Your task to perform on an android device: Search for "razer naga" on bestbuy, select the first entry, and add it to the cart. Image 0: 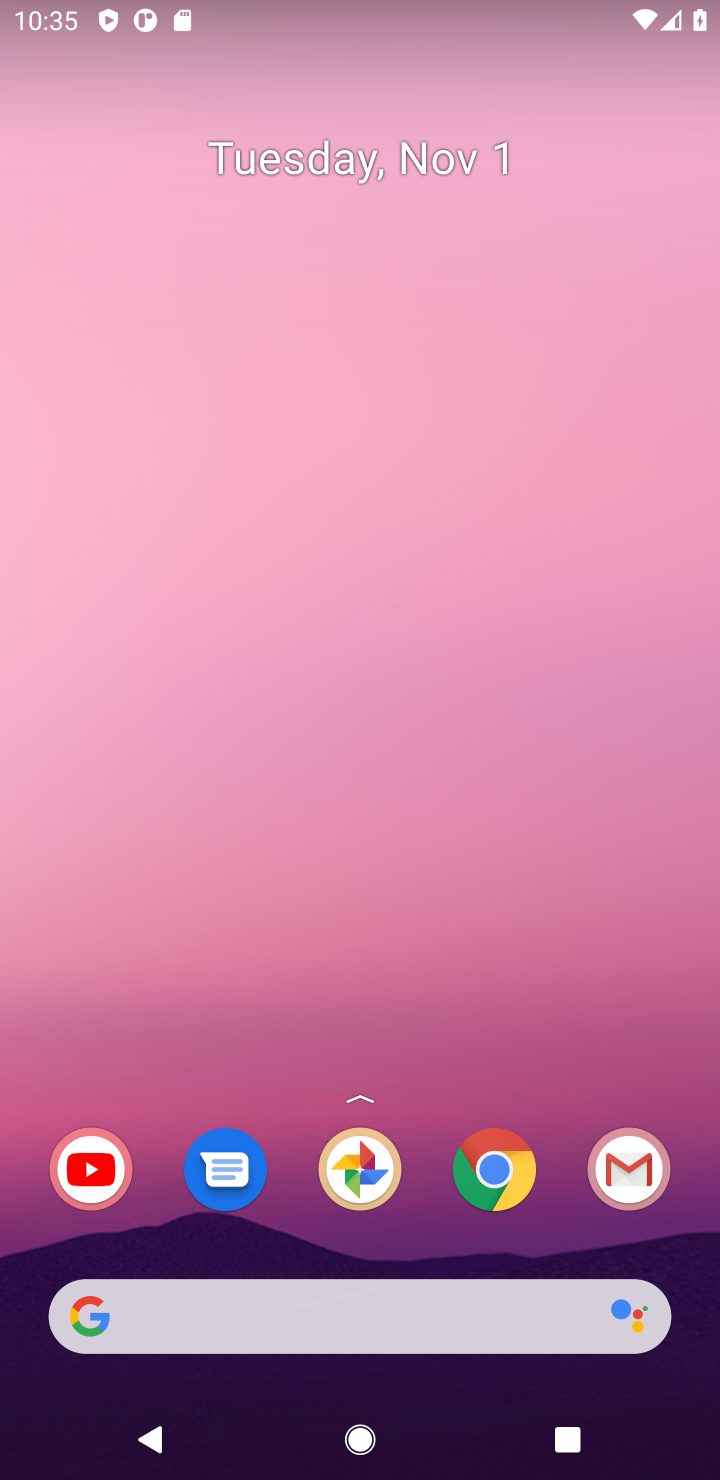
Step 0: click (486, 1168)
Your task to perform on an android device: Search for "razer naga" on bestbuy, select the first entry, and add it to the cart. Image 1: 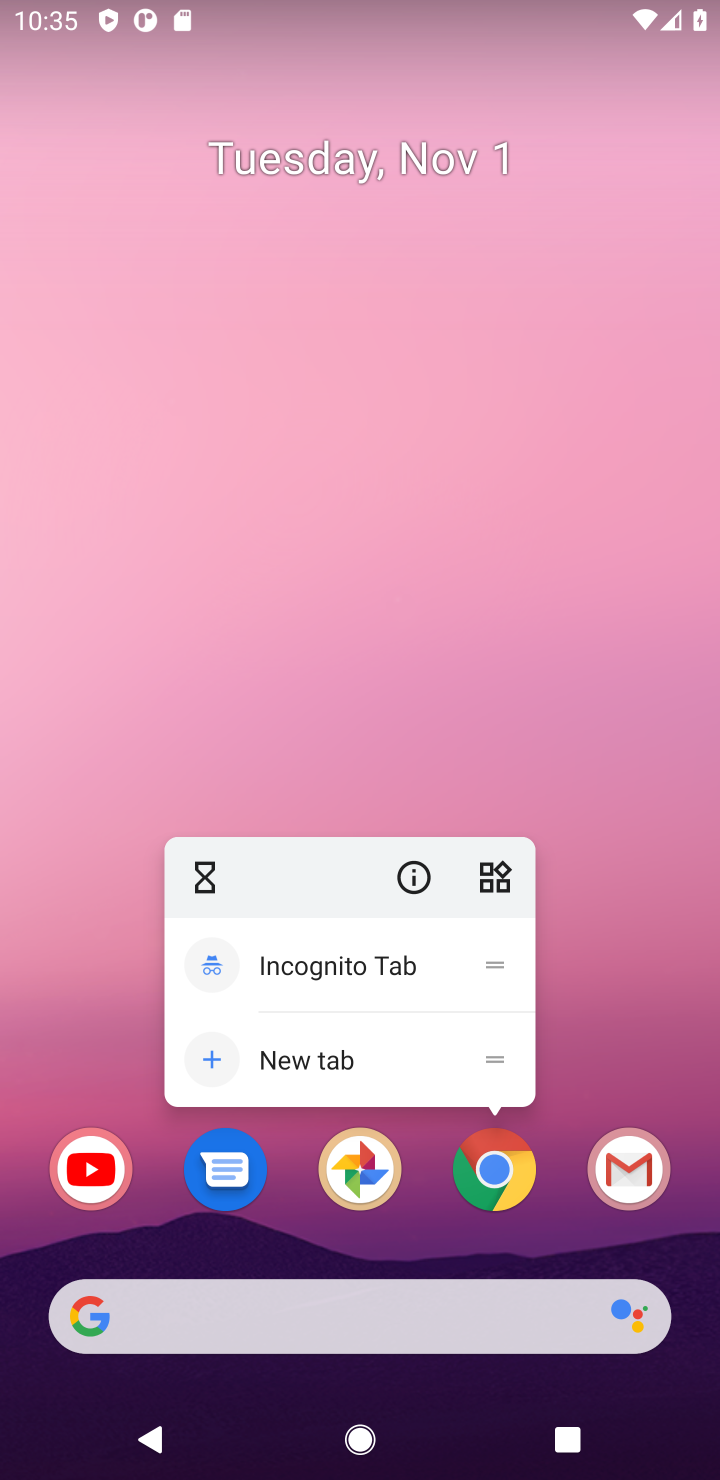
Step 1: click (497, 1165)
Your task to perform on an android device: Search for "razer naga" on bestbuy, select the first entry, and add it to the cart. Image 2: 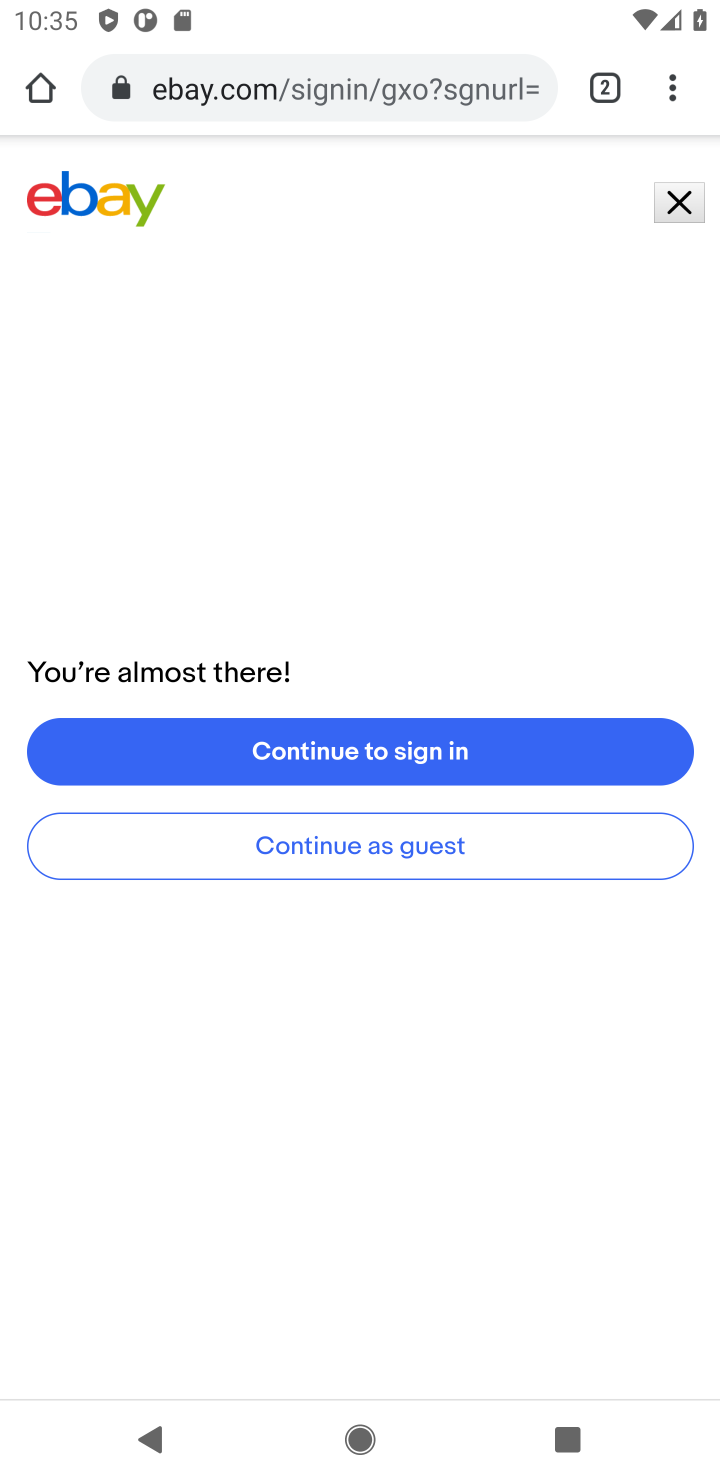
Step 2: click (401, 93)
Your task to perform on an android device: Search for "razer naga" on bestbuy, select the first entry, and add it to the cart. Image 3: 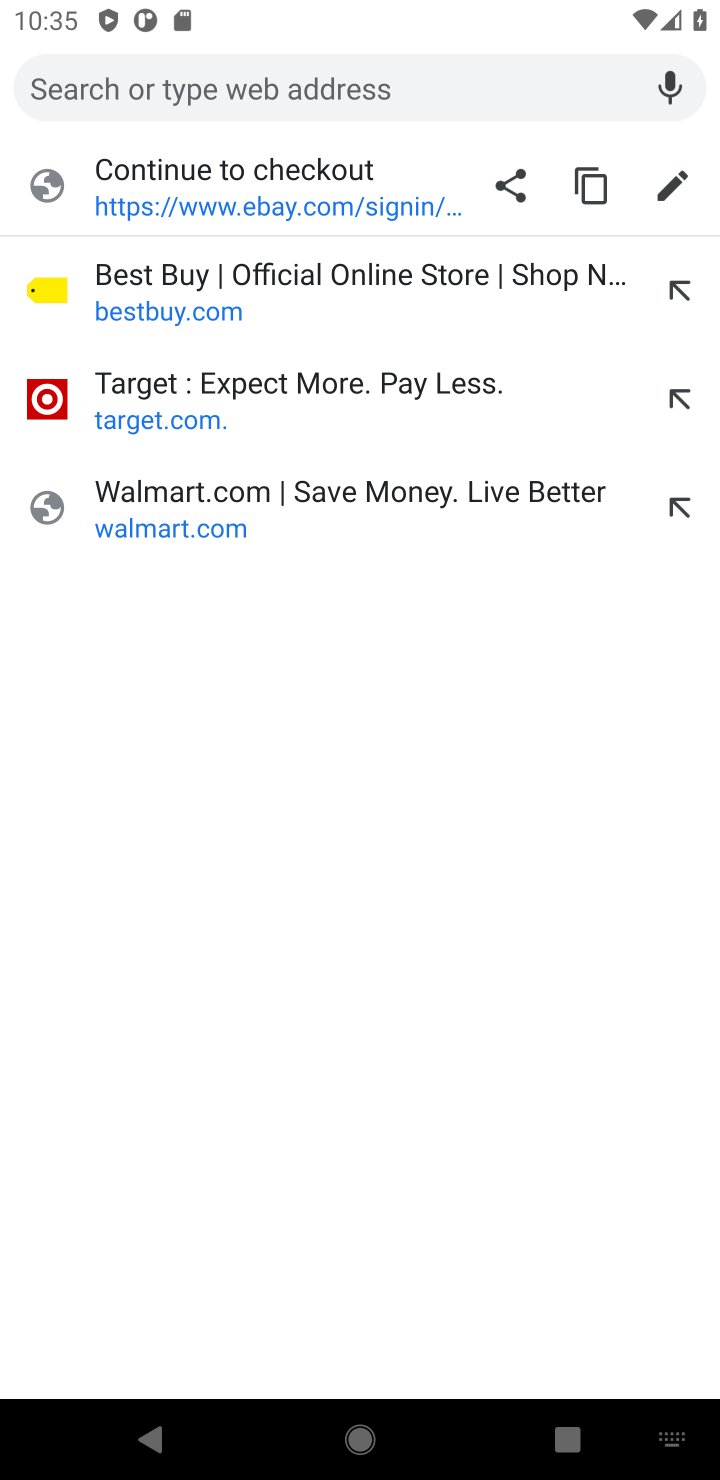
Step 3: type "bestbuy"
Your task to perform on an android device: Search for "razer naga" on bestbuy, select the first entry, and add it to the cart. Image 4: 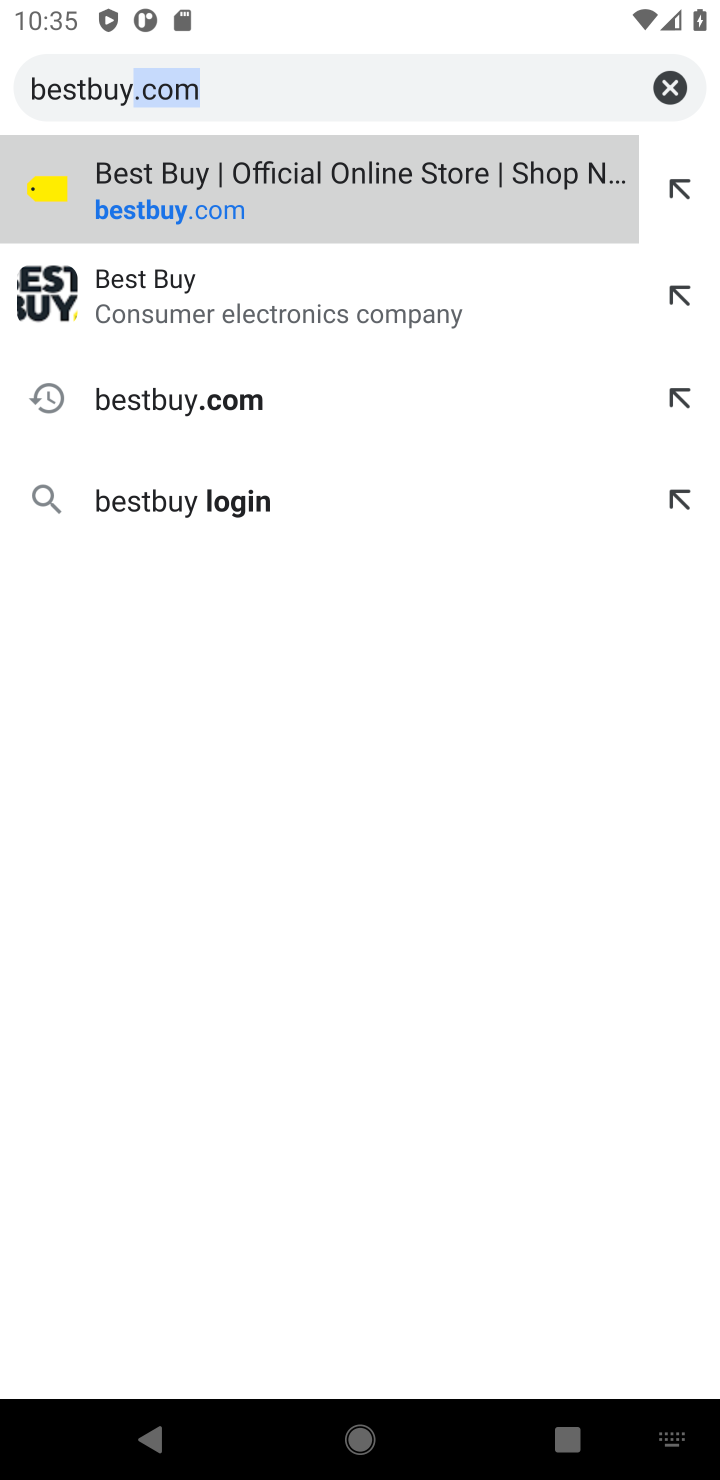
Step 4: click (210, 391)
Your task to perform on an android device: Search for "razer naga" on bestbuy, select the first entry, and add it to the cart. Image 5: 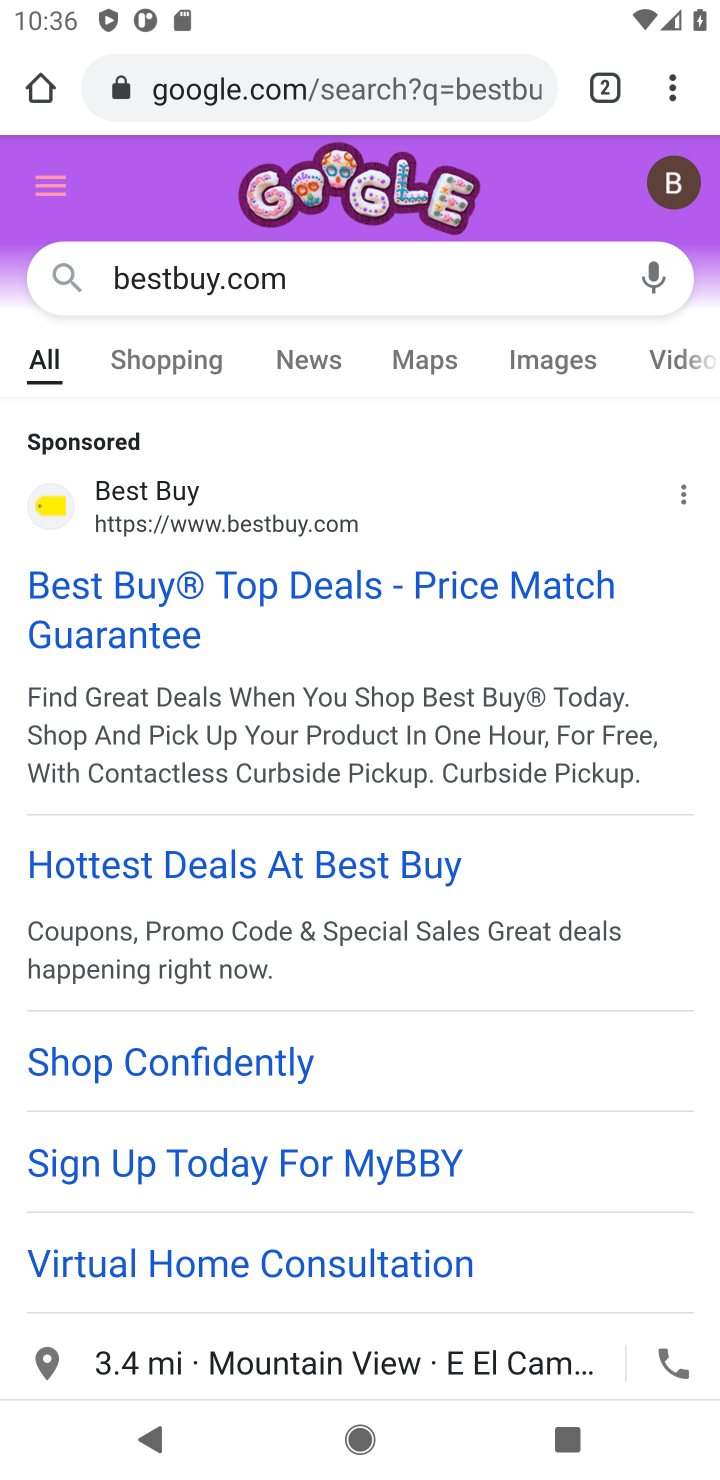
Step 5: click (198, 517)
Your task to perform on an android device: Search for "razer naga" on bestbuy, select the first entry, and add it to the cart. Image 6: 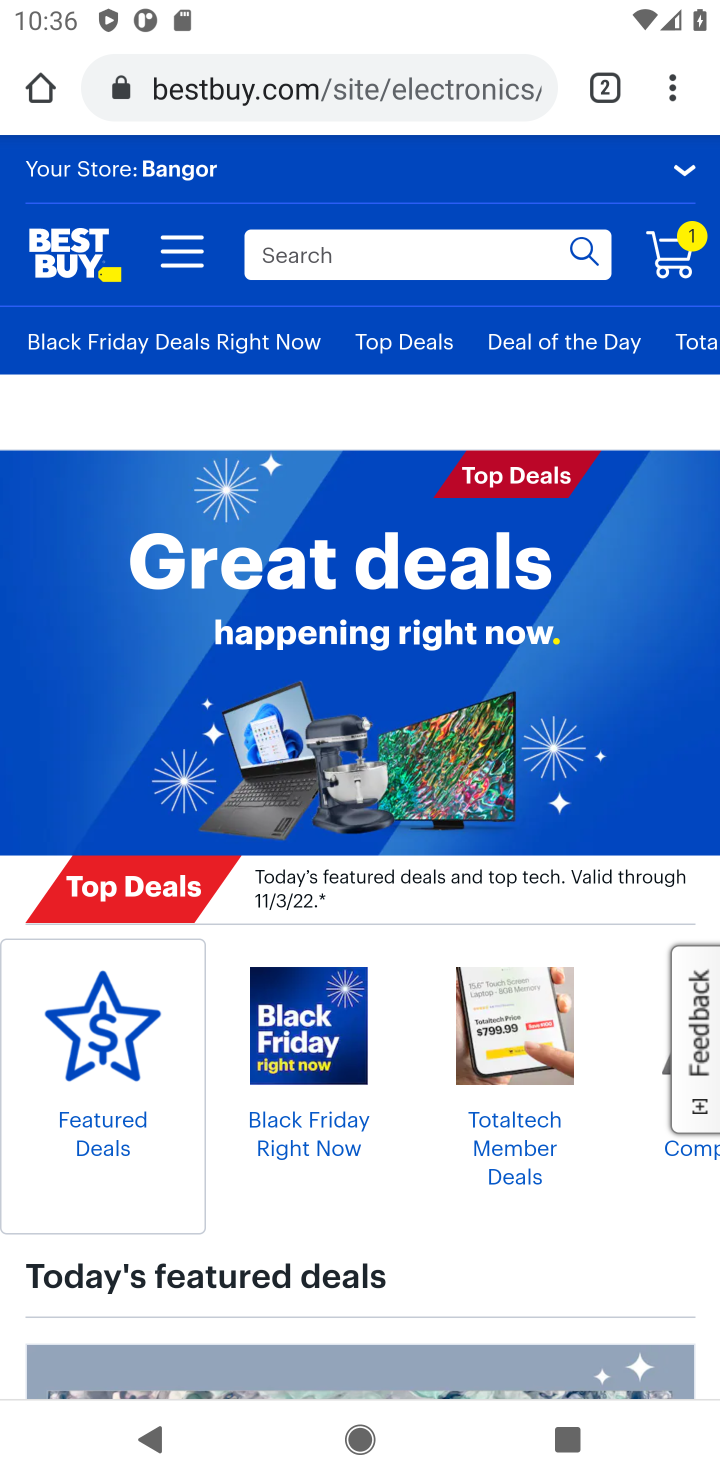
Step 6: click (405, 234)
Your task to perform on an android device: Search for "razer naga" on bestbuy, select the first entry, and add it to the cart. Image 7: 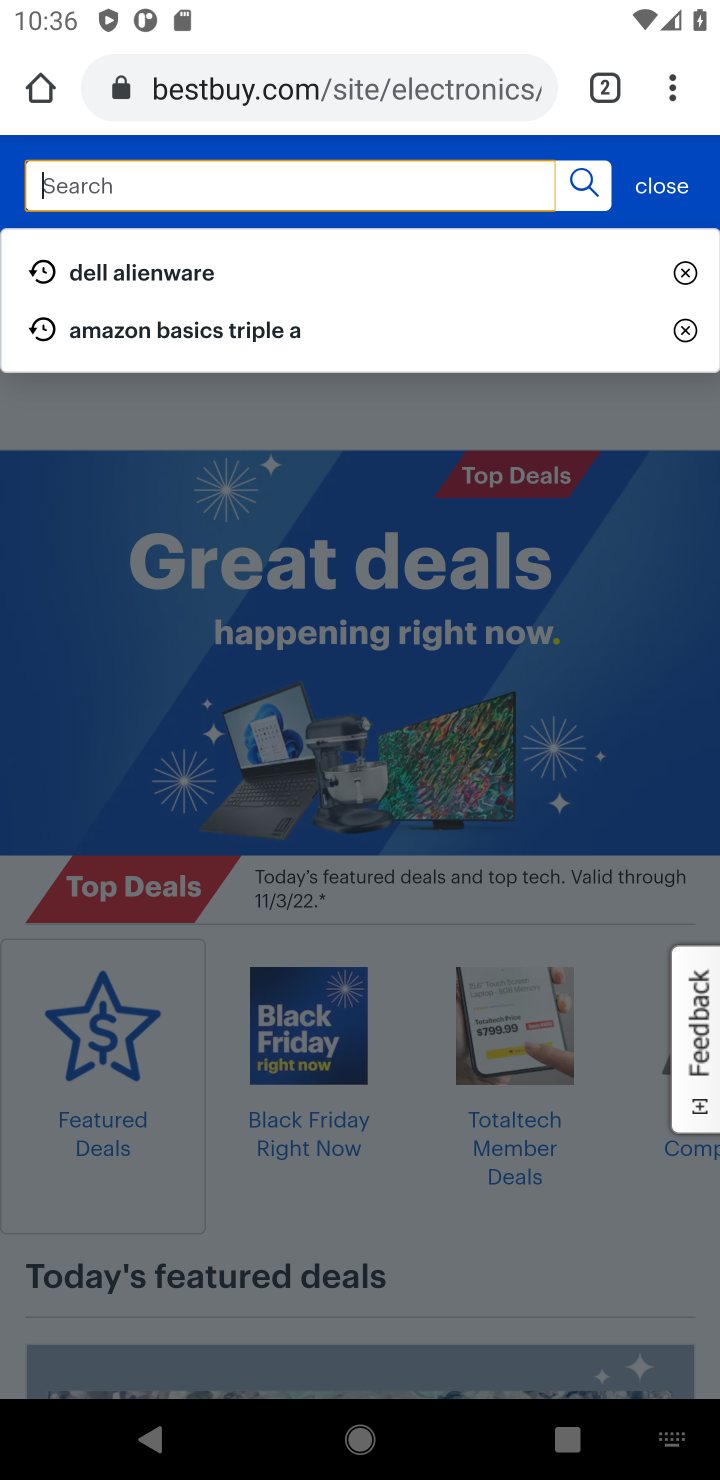
Step 7: type "razer naga"
Your task to perform on an android device: Search for "razer naga" on bestbuy, select the first entry, and add it to the cart. Image 8: 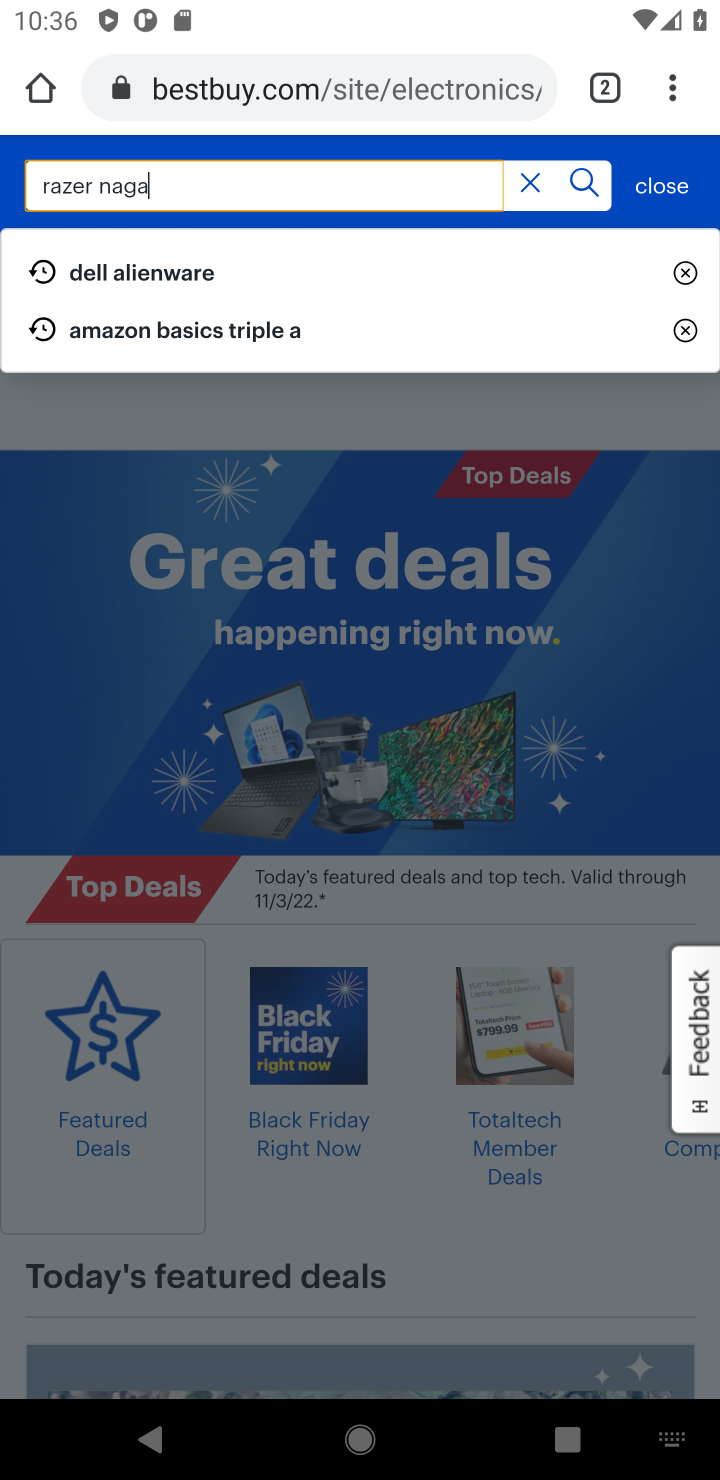
Step 8: press enter
Your task to perform on an android device: Search for "razer naga" on bestbuy, select the first entry, and add it to the cart. Image 9: 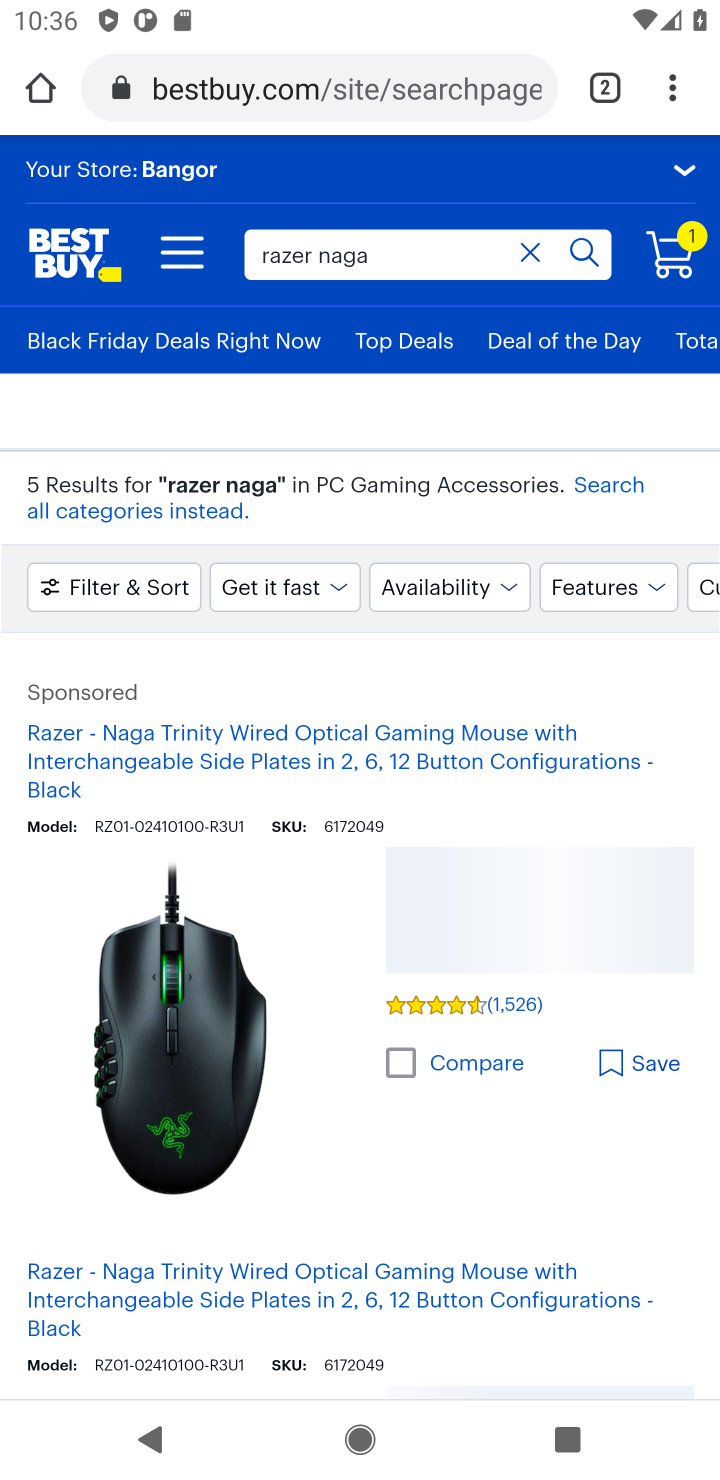
Step 9: click (216, 936)
Your task to perform on an android device: Search for "razer naga" on bestbuy, select the first entry, and add it to the cart. Image 10: 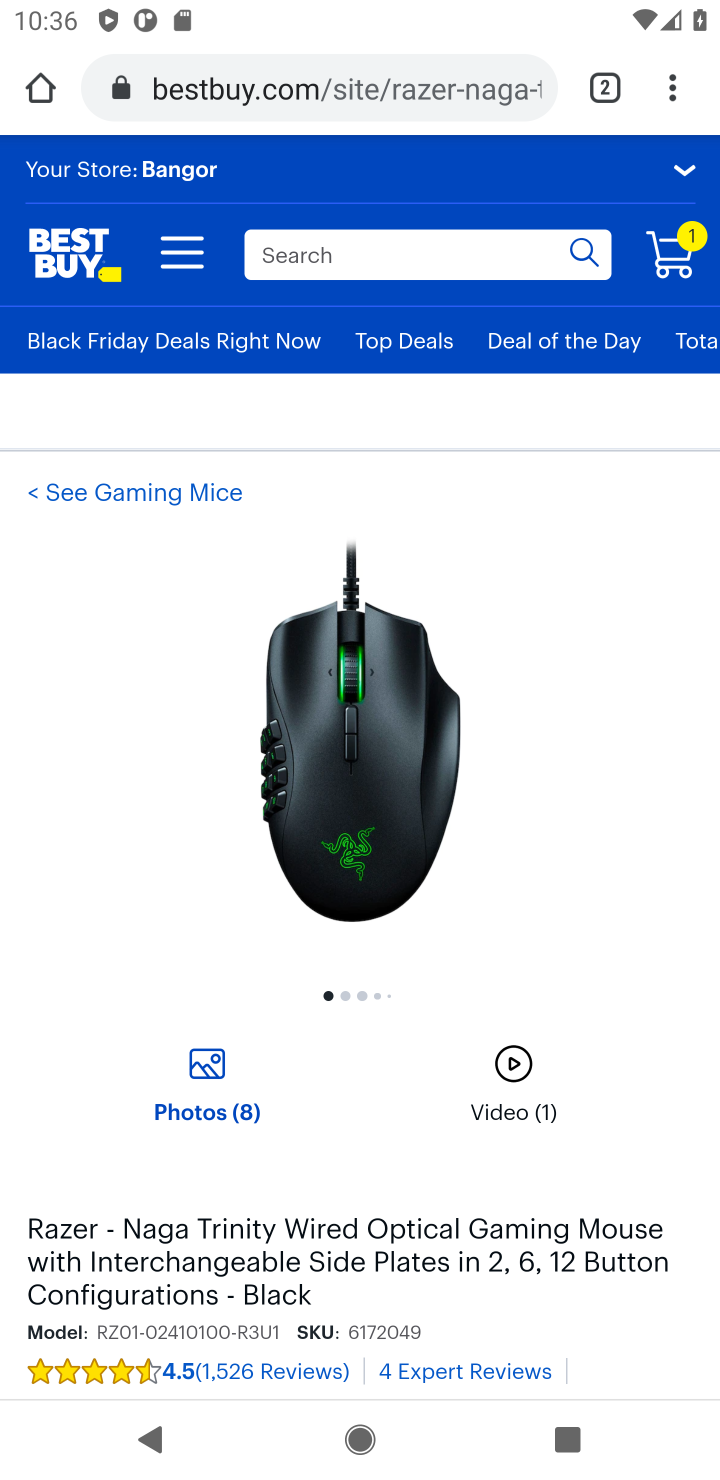
Step 10: drag from (428, 1215) to (435, 624)
Your task to perform on an android device: Search for "razer naga" on bestbuy, select the first entry, and add it to the cart. Image 11: 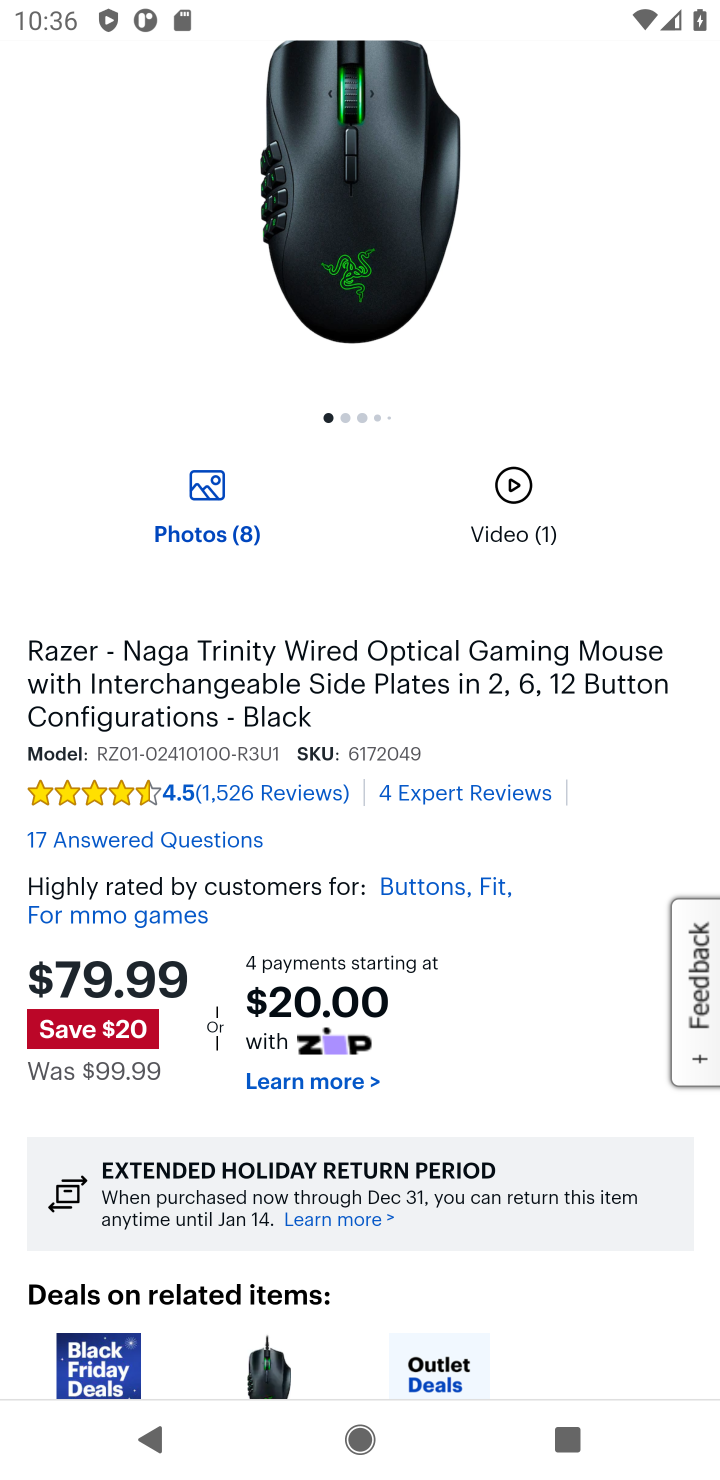
Step 11: drag from (512, 1099) to (508, 636)
Your task to perform on an android device: Search for "razer naga" on bestbuy, select the first entry, and add it to the cart. Image 12: 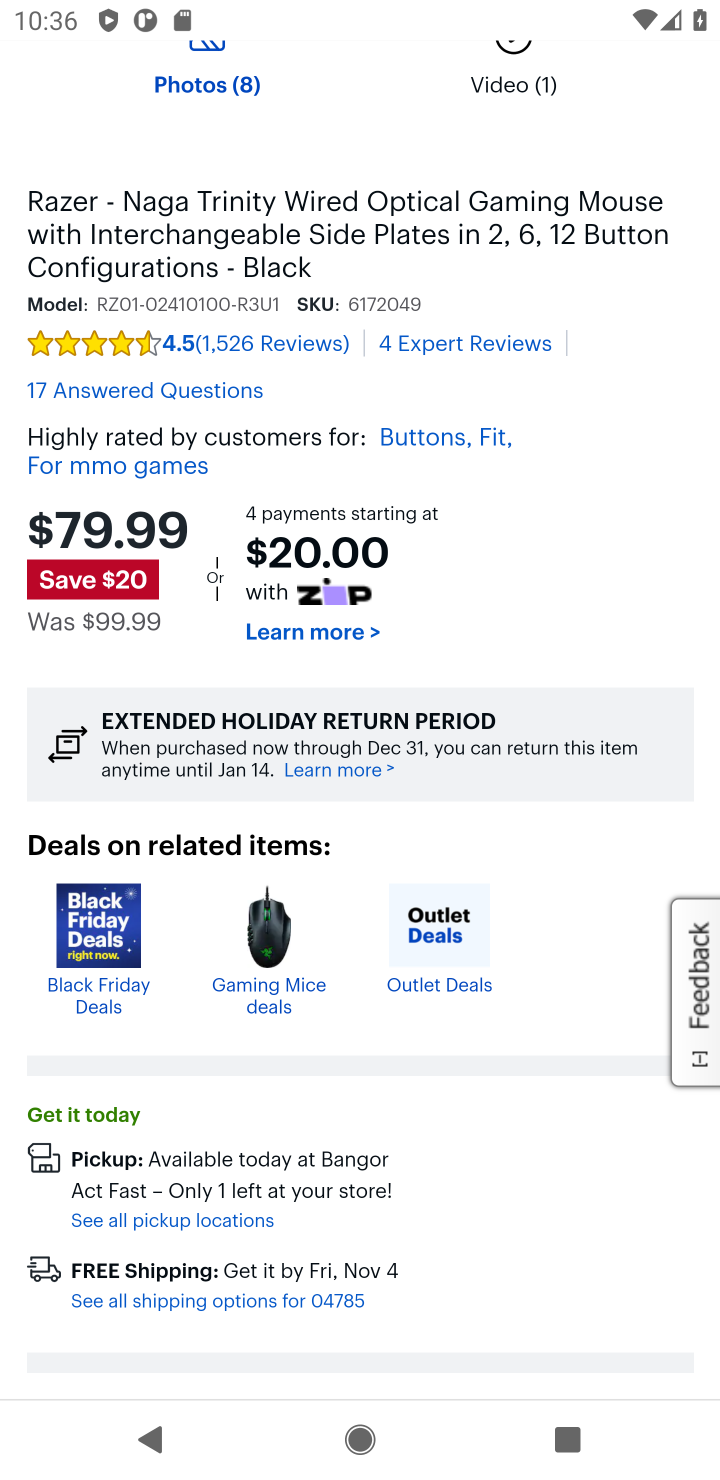
Step 12: drag from (456, 1279) to (537, 480)
Your task to perform on an android device: Search for "razer naga" on bestbuy, select the first entry, and add it to the cart. Image 13: 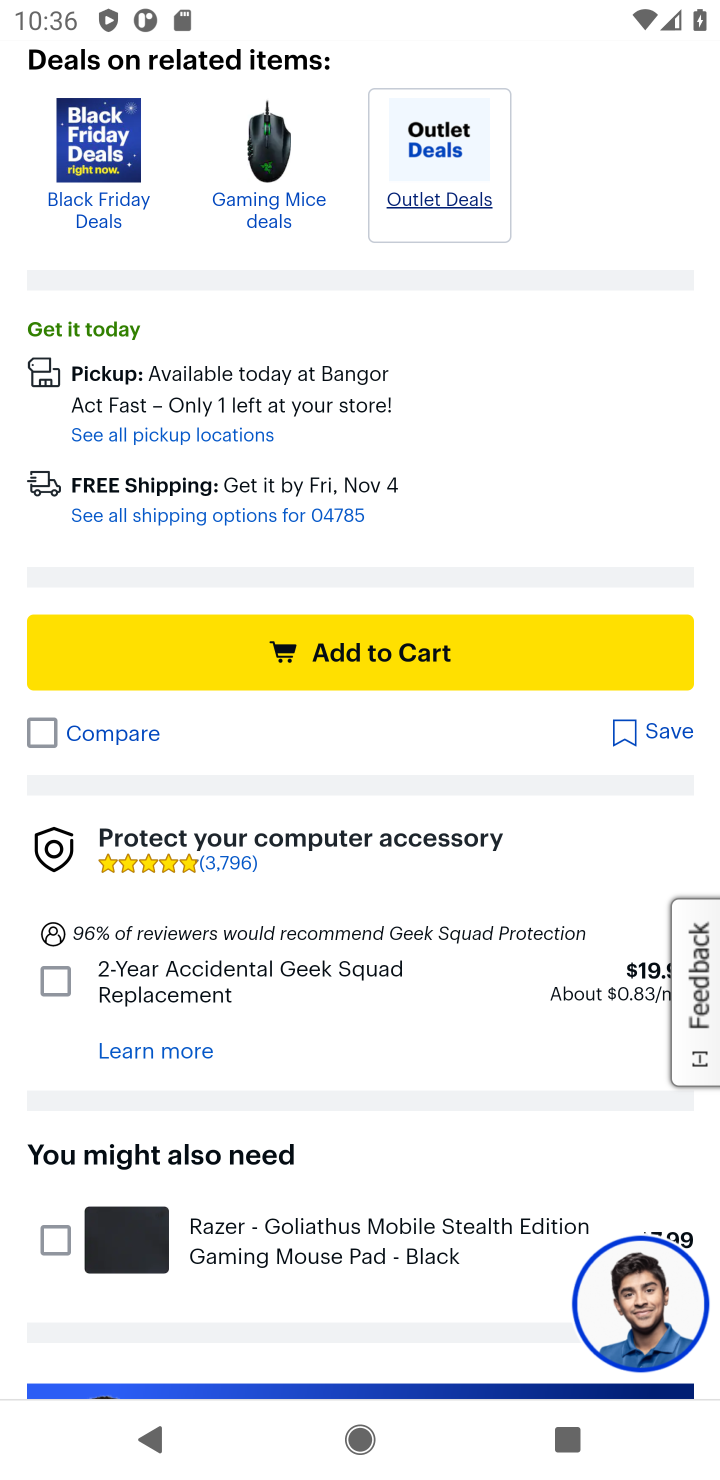
Step 13: click (435, 652)
Your task to perform on an android device: Search for "razer naga" on bestbuy, select the first entry, and add it to the cart. Image 14: 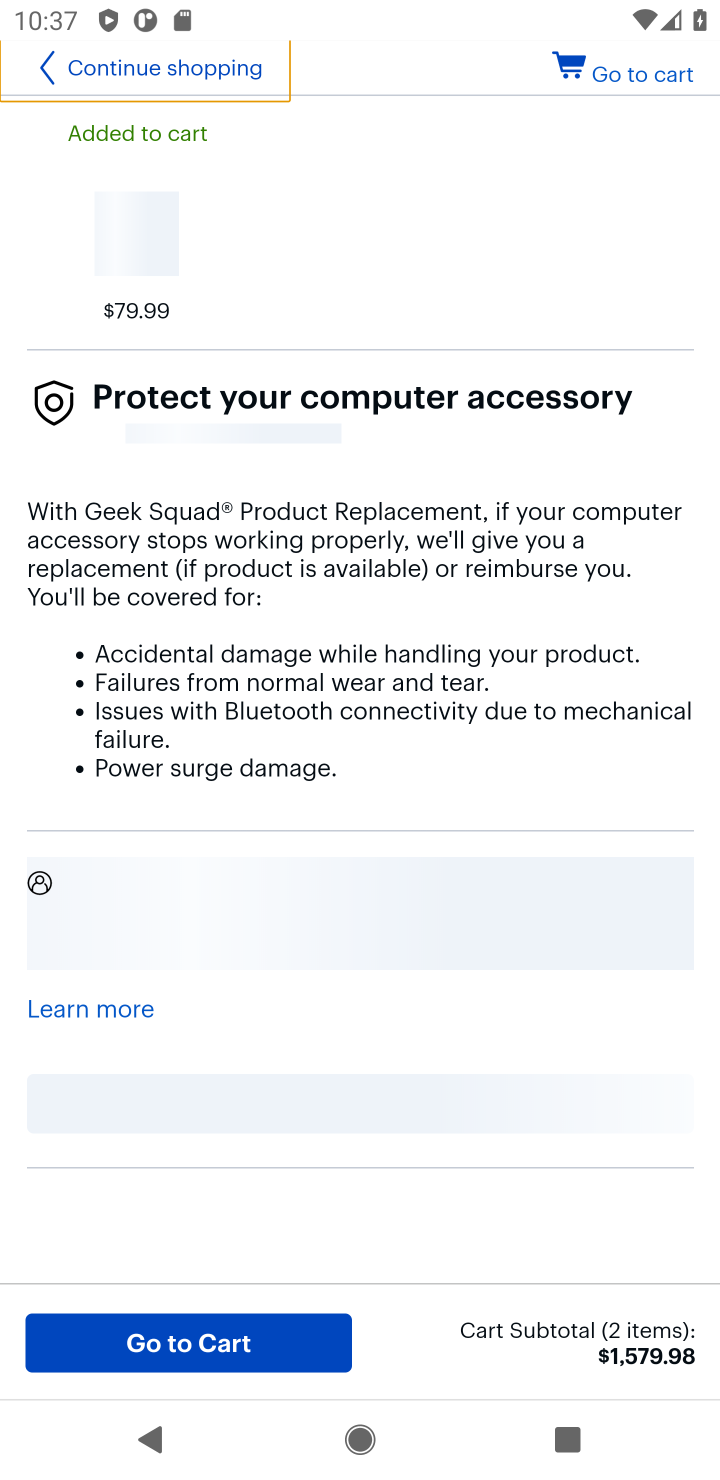
Step 14: task complete